Your task to perform on an android device: Open Android settings Image 0: 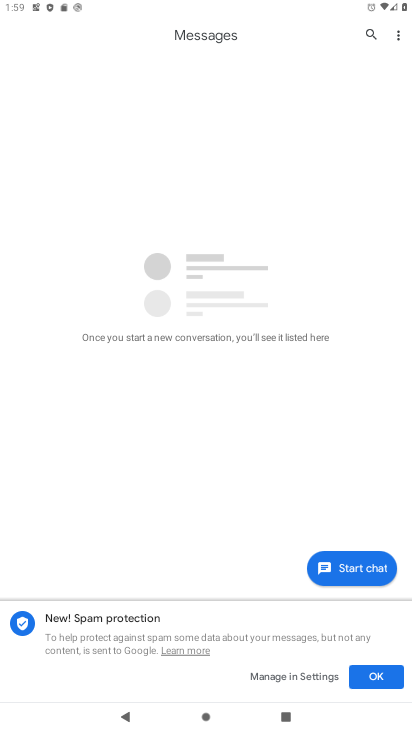
Step 0: press home button
Your task to perform on an android device: Open Android settings Image 1: 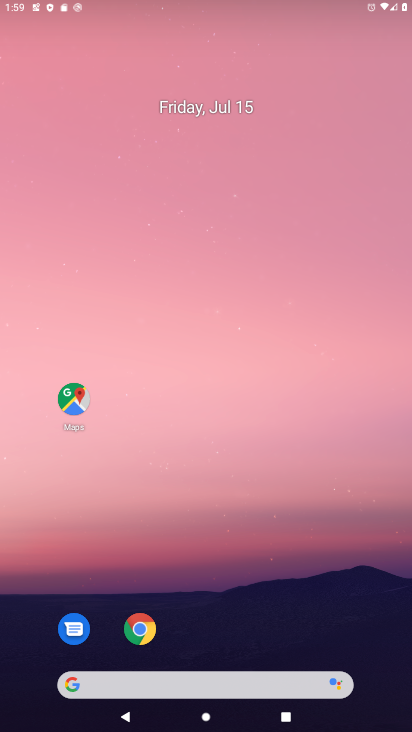
Step 1: drag from (283, 643) to (335, 202)
Your task to perform on an android device: Open Android settings Image 2: 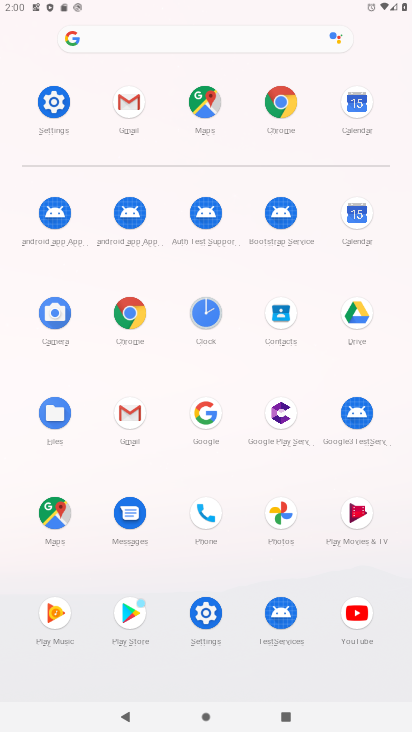
Step 2: click (51, 99)
Your task to perform on an android device: Open Android settings Image 3: 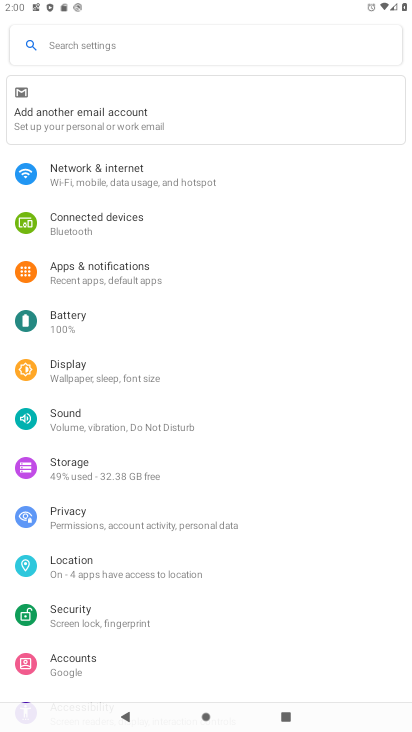
Step 3: task complete